Your task to perform on an android device: Clear the cart on amazon. Search for rayovac triple a on amazon, select the first entry, add it to the cart, then select checkout. Image 0: 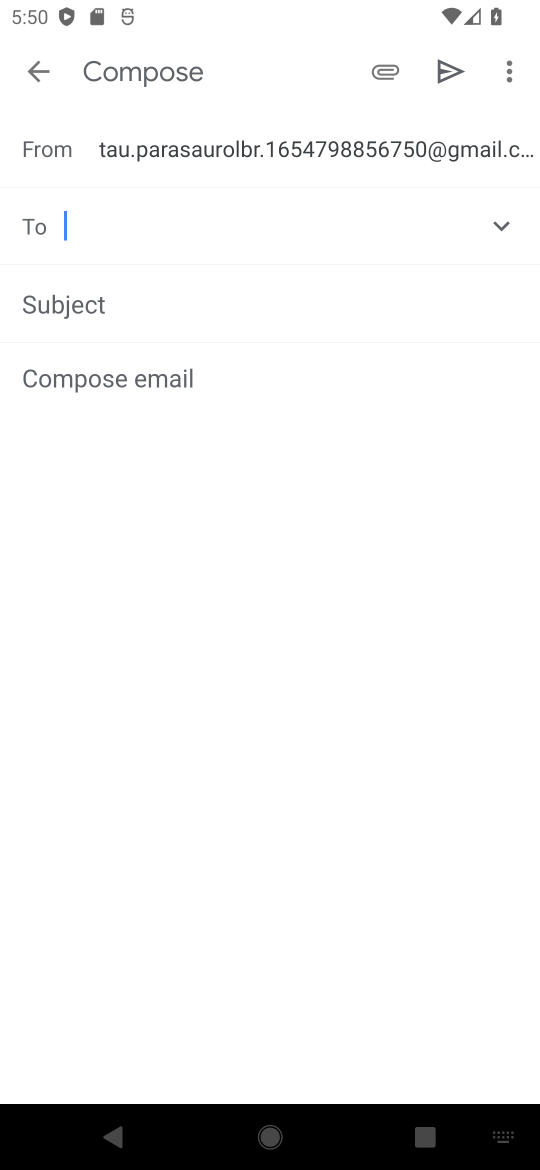
Step 0: press home button
Your task to perform on an android device: Clear the cart on amazon. Search for rayovac triple a on amazon, select the first entry, add it to the cart, then select checkout. Image 1: 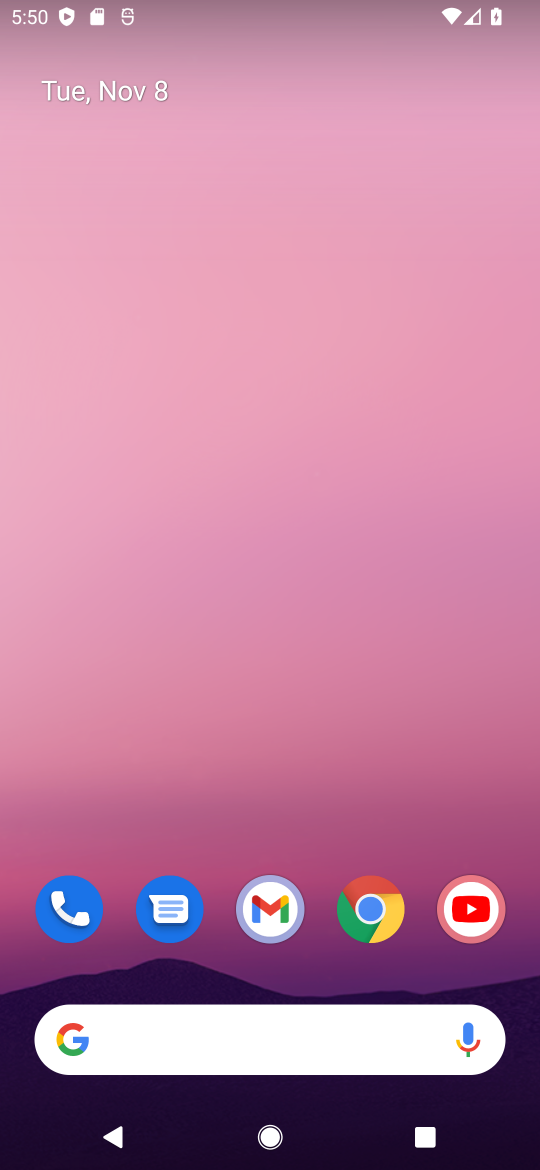
Step 1: click (366, 913)
Your task to perform on an android device: Clear the cart on amazon. Search for rayovac triple a on amazon, select the first entry, add it to the cart, then select checkout. Image 2: 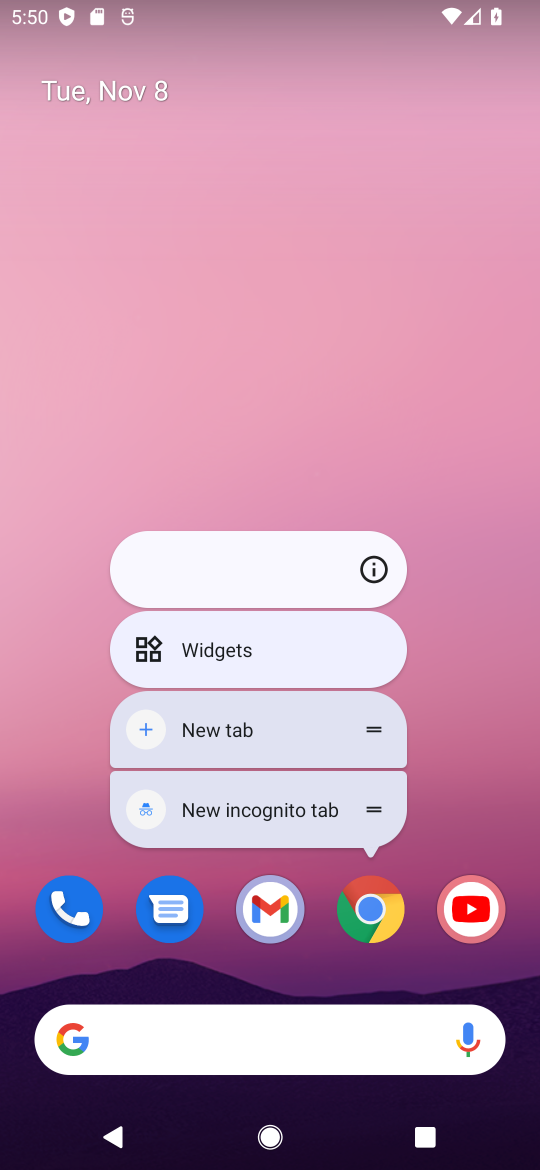
Step 2: click (382, 899)
Your task to perform on an android device: Clear the cart on amazon. Search for rayovac triple a on amazon, select the first entry, add it to the cart, then select checkout. Image 3: 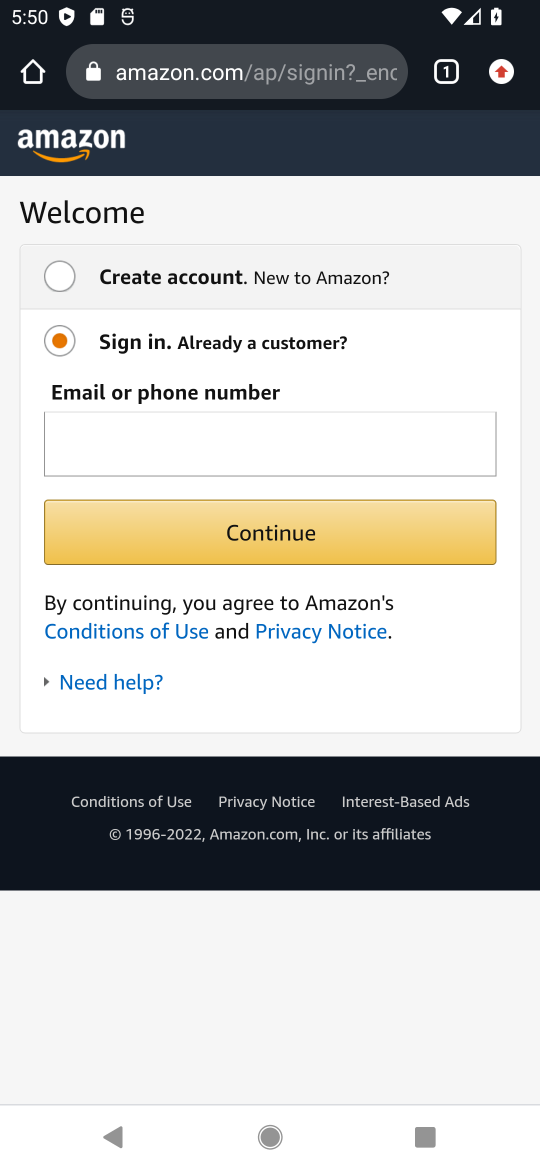
Step 3: press back button
Your task to perform on an android device: Clear the cart on amazon. Search for rayovac triple a on amazon, select the first entry, add it to the cart, then select checkout. Image 4: 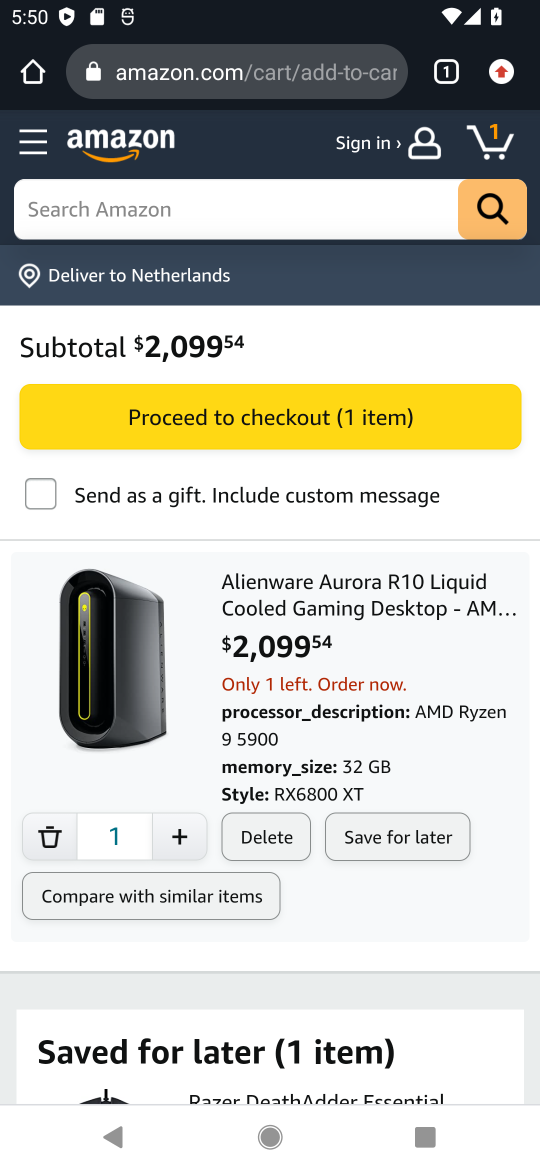
Step 4: click (251, 836)
Your task to perform on an android device: Clear the cart on amazon. Search for rayovac triple a on amazon, select the first entry, add it to the cart, then select checkout. Image 5: 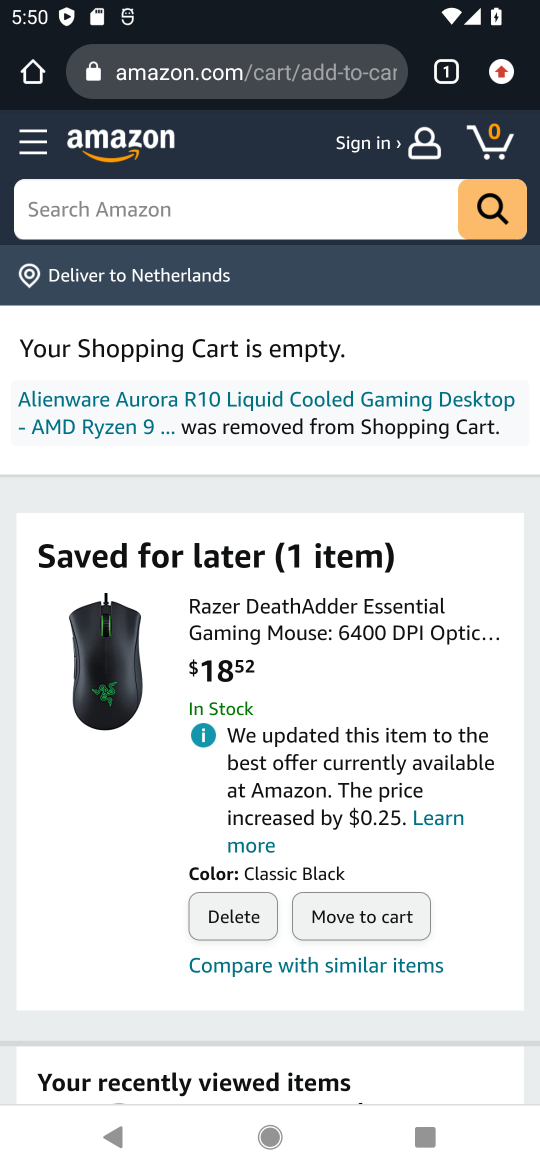
Step 5: click (227, 922)
Your task to perform on an android device: Clear the cart on amazon. Search for rayovac triple a on amazon, select the first entry, add it to the cart, then select checkout. Image 6: 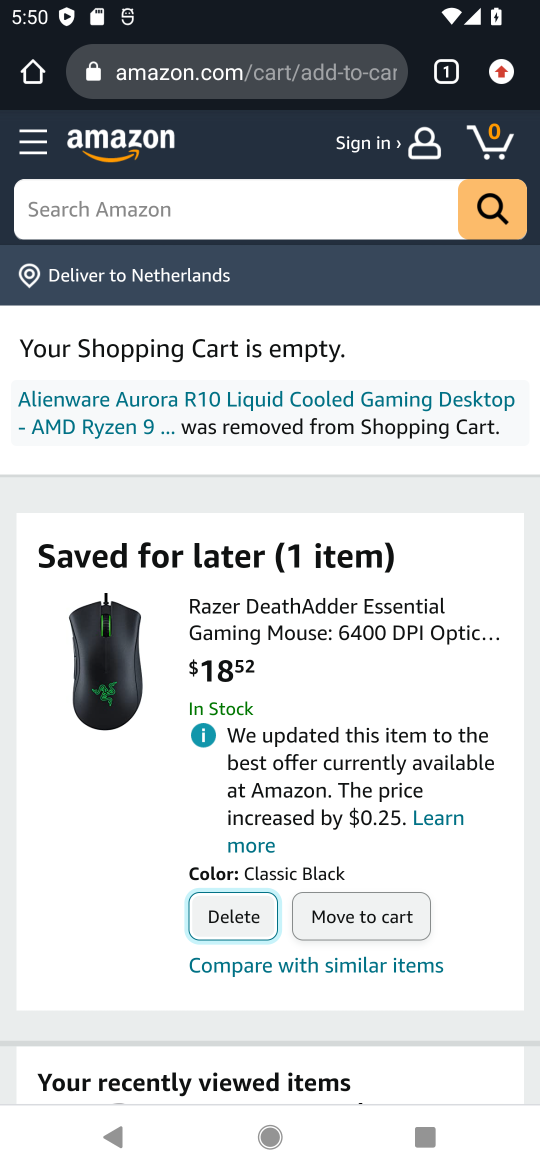
Step 6: click (234, 916)
Your task to perform on an android device: Clear the cart on amazon. Search for rayovac triple a on amazon, select the first entry, add it to the cart, then select checkout. Image 7: 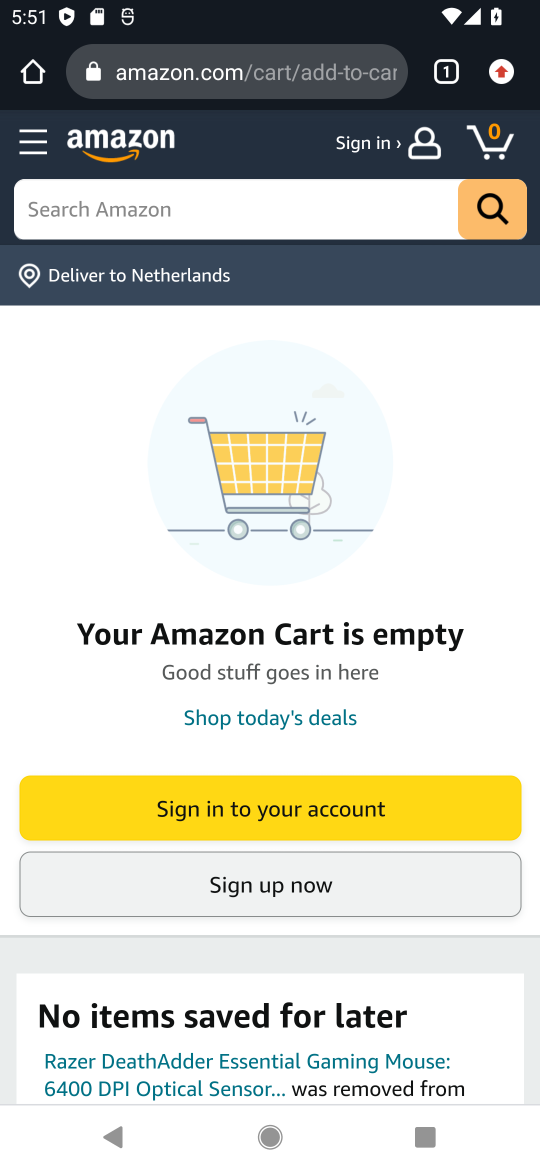
Step 7: click (287, 195)
Your task to perform on an android device: Clear the cart on amazon. Search for rayovac triple a on amazon, select the first entry, add it to the cart, then select checkout. Image 8: 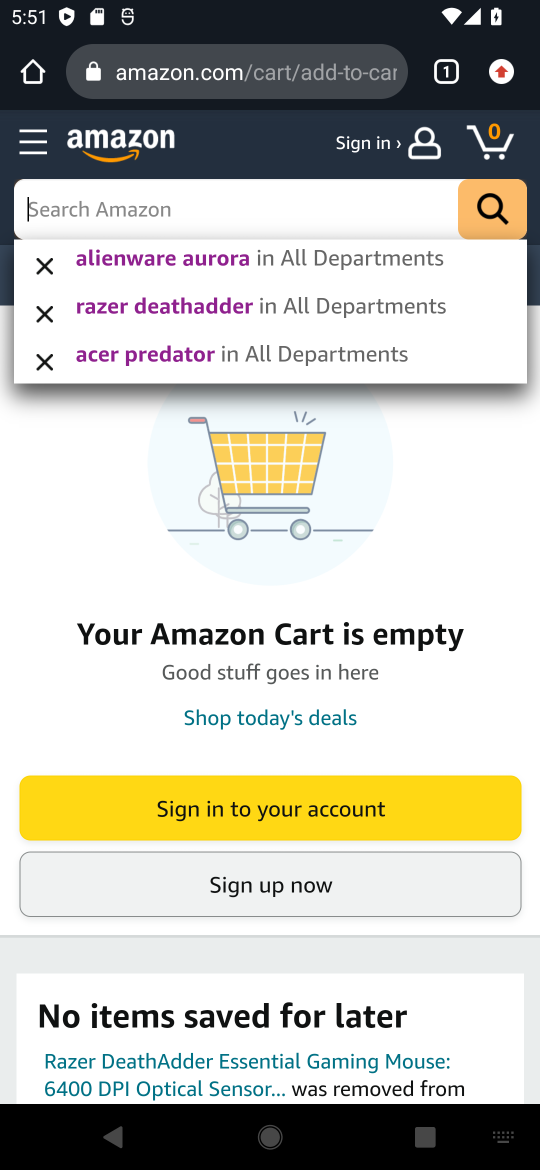
Step 8: type "rayovac triple a"
Your task to perform on an android device: Clear the cart on amazon. Search for rayovac triple a on amazon, select the first entry, add it to the cart, then select checkout. Image 9: 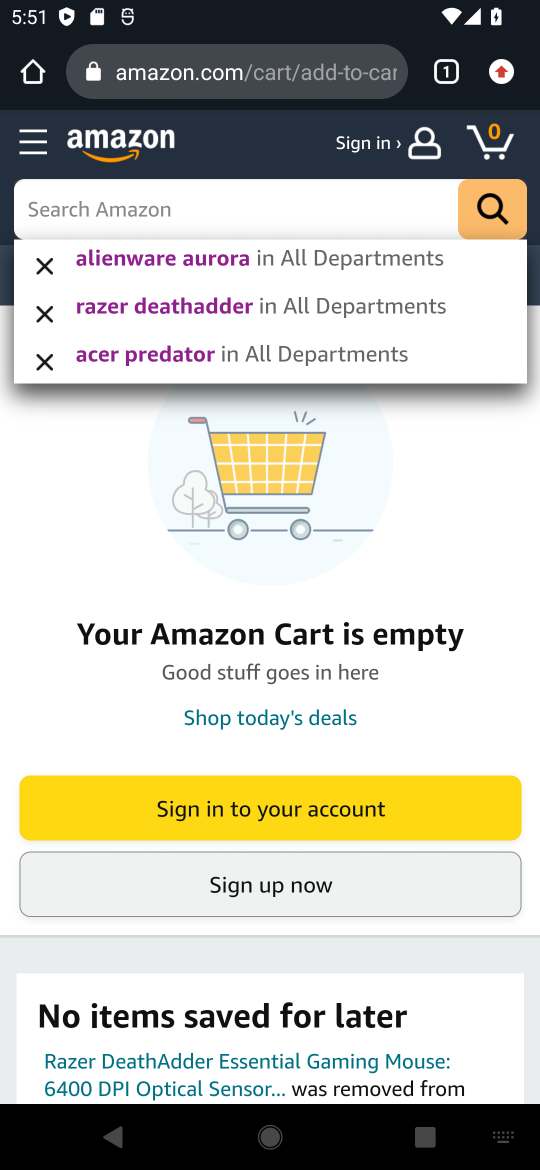
Step 9: press enter
Your task to perform on an android device: Clear the cart on amazon. Search for rayovac triple a on amazon, select the first entry, add it to the cart, then select checkout. Image 10: 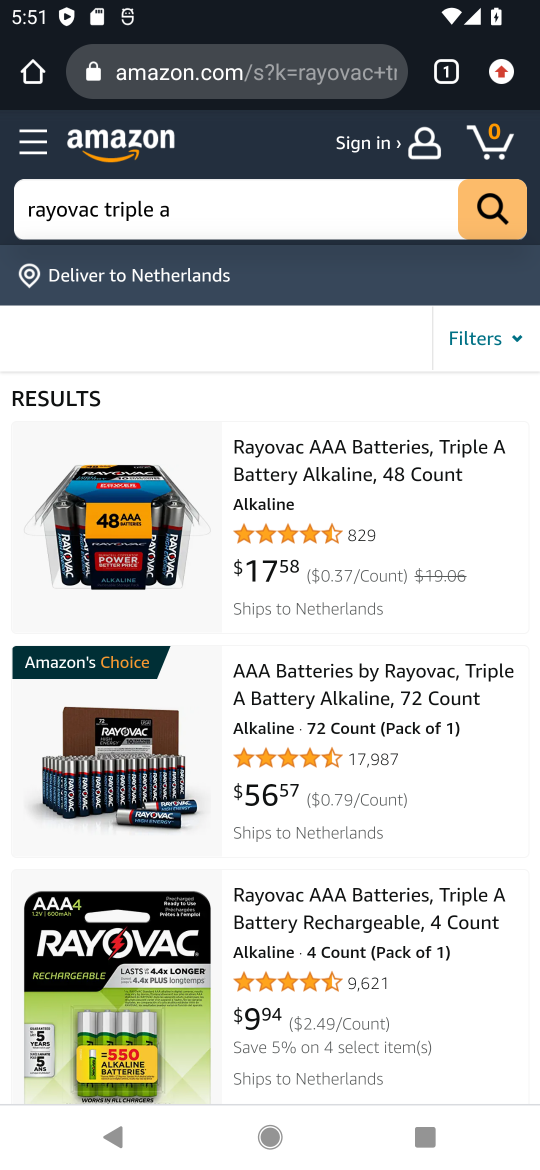
Step 10: click (374, 467)
Your task to perform on an android device: Clear the cart on amazon. Search for rayovac triple a on amazon, select the first entry, add it to the cart, then select checkout. Image 11: 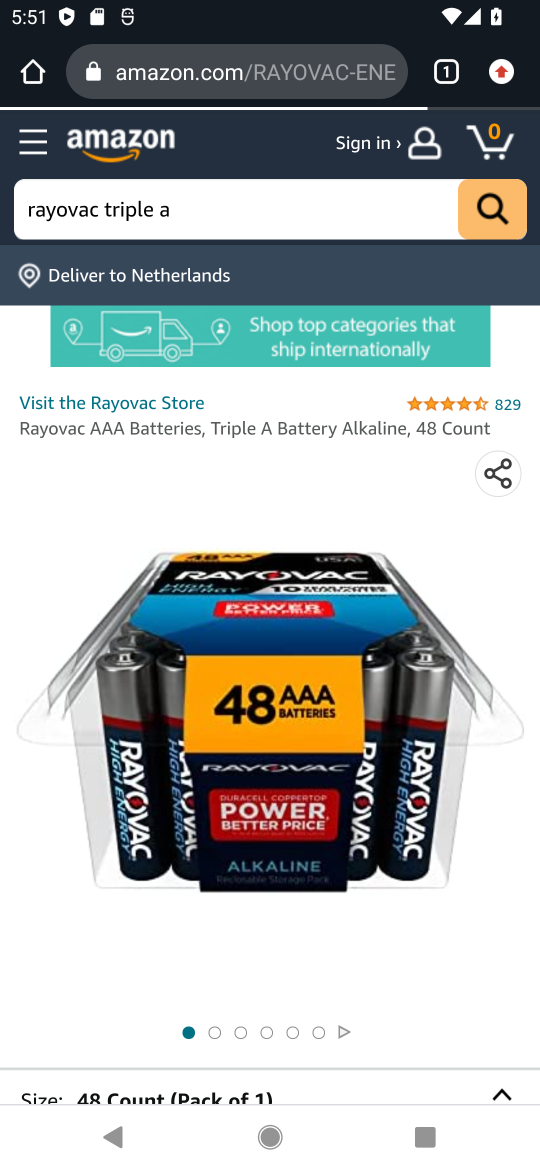
Step 11: drag from (182, 938) to (429, 231)
Your task to perform on an android device: Clear the cart on amazon. Search for rayovac triple a on amazon, select the first entry, add it to the cart, then select checkout. Image 12: 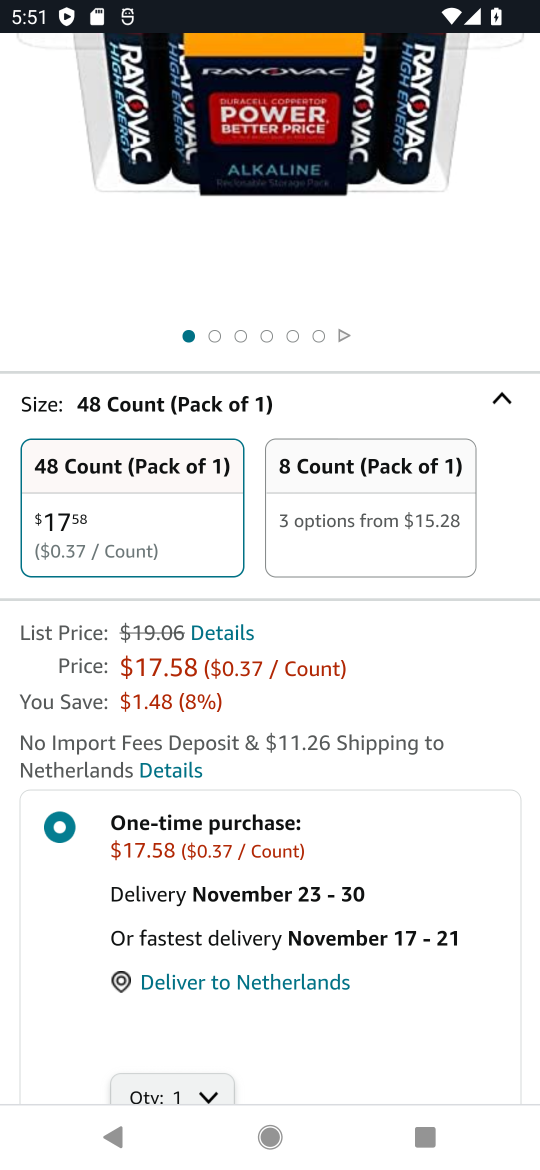
Step 12: drag from (336, 865) to (490, 191)
Your task to perform on an android device: Clear the cart on amazon. Search for rayovac triple a on amazon, select the first entry, add it to the cart, then select checkout. Image 13: 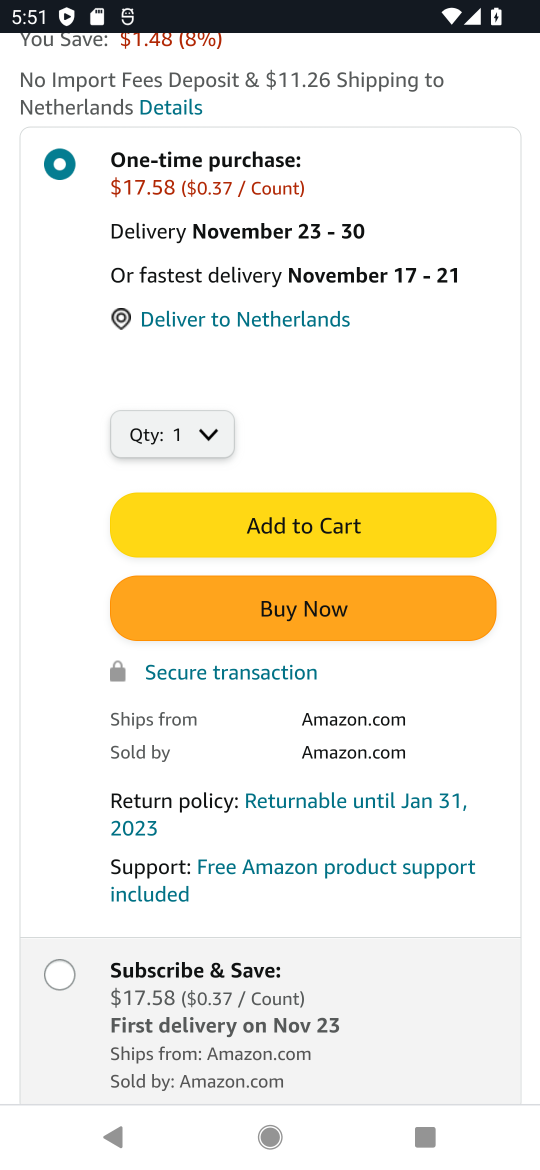
Step 13: click (315, 521)
Your task to perform on an android device: Clear the cart on amazon. Search for rayovac triple a on amazon, select the first entry, add it to the cart, then select checkout. Image 14: 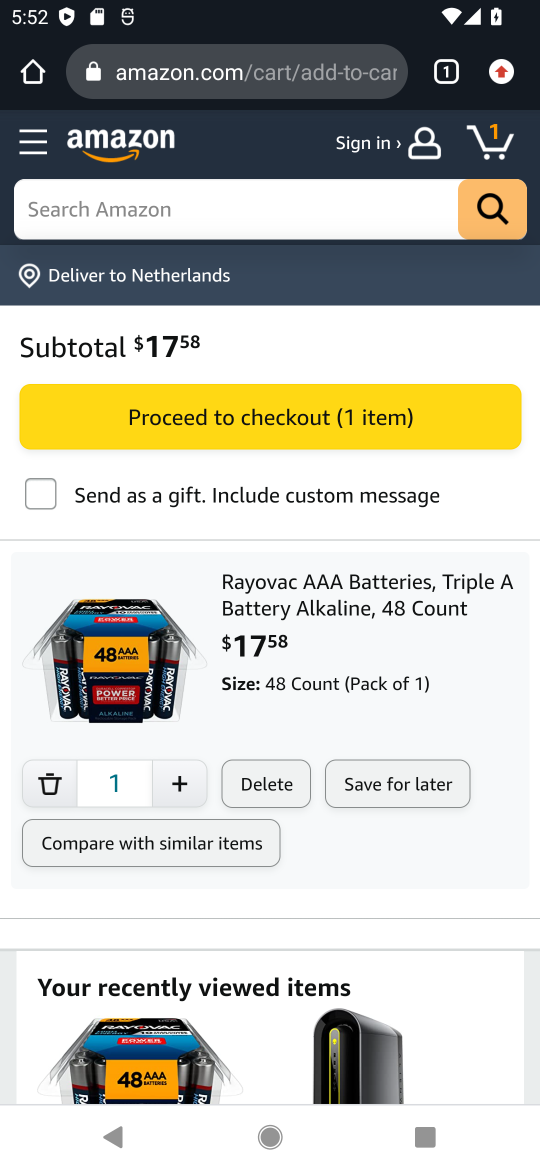
Step 14: click (314, 415)
Your task to perform on an android device: Clear the cart on amazon. Search for rayovac triple a on amazon, select the first entry, add it to the cart, then select checkout. Image 15: 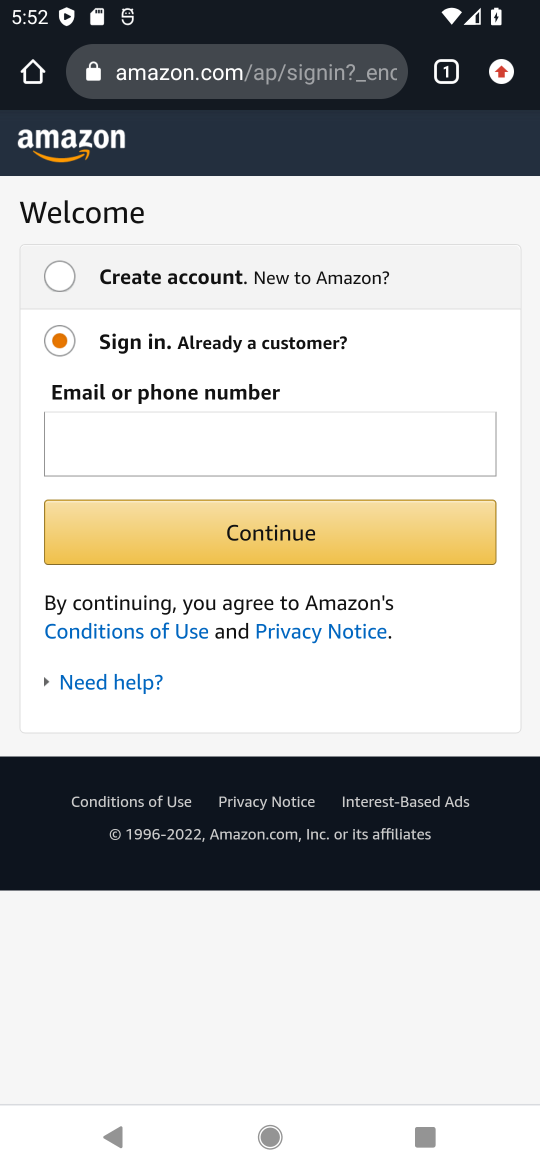
Step 15: task complete